Your task to perform on an android device: turn on notifications settings in the gmail app Image 0: 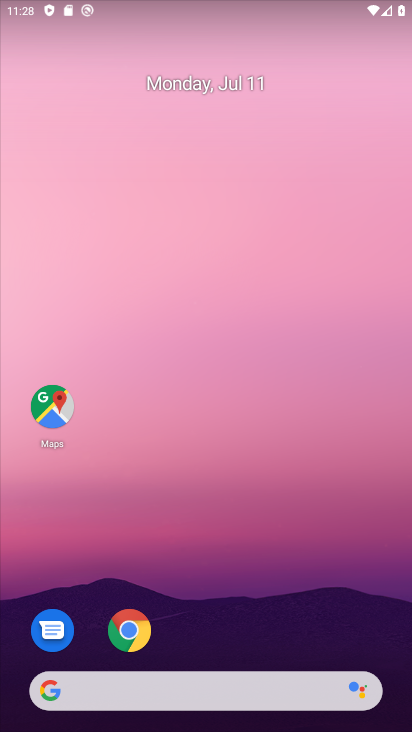
Step 0: drag from (221, 694) to (297, 204)
Your task to perform on an android device: turn on notifications settings in the gmail app Image 1: 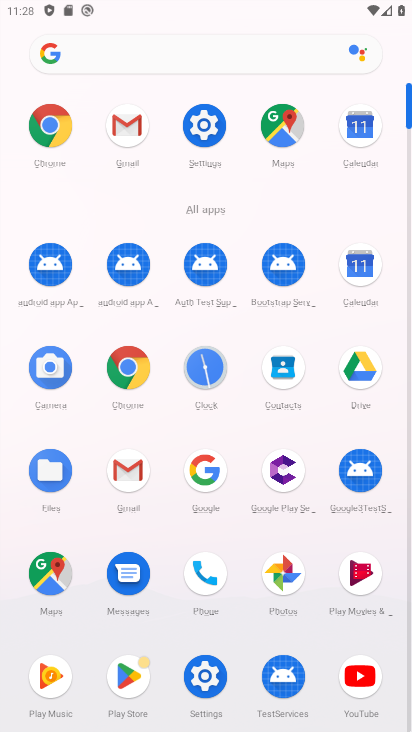
Step 1: click (125, 125)
Your task to perform on an android device: turn on notifications settings in the gmail app Image 2: 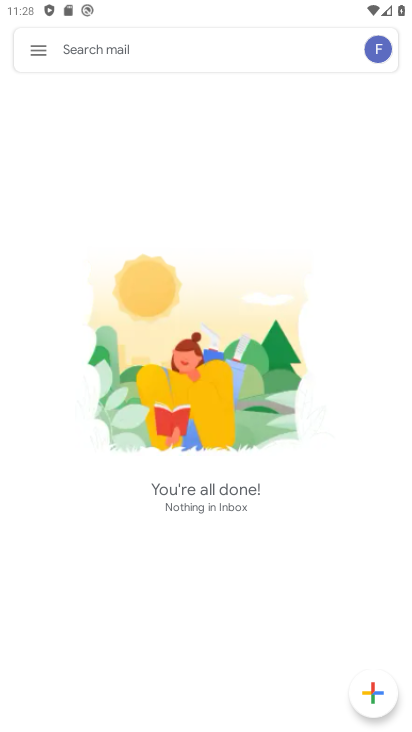
Step 2: click (43, 50)
Your task to perform on an android device: turn on notifications settings in the gmail app Image 3: 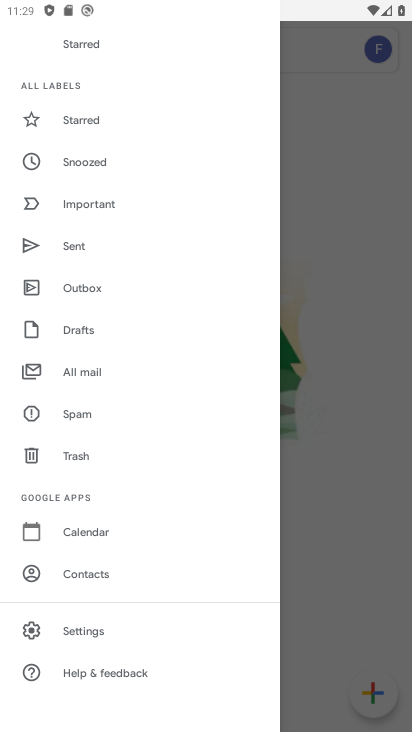
Step 3: click (96, 627)
Your task to perform on an android device: turn on notifications settings in the gmail app Image 4: 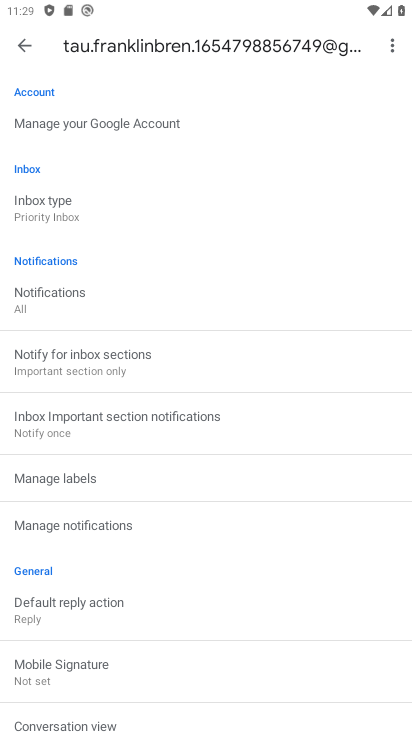
Step 4: click (116, 522)
Your task to perform on an android device: turn on notifications settings in the gmail app Image 5: 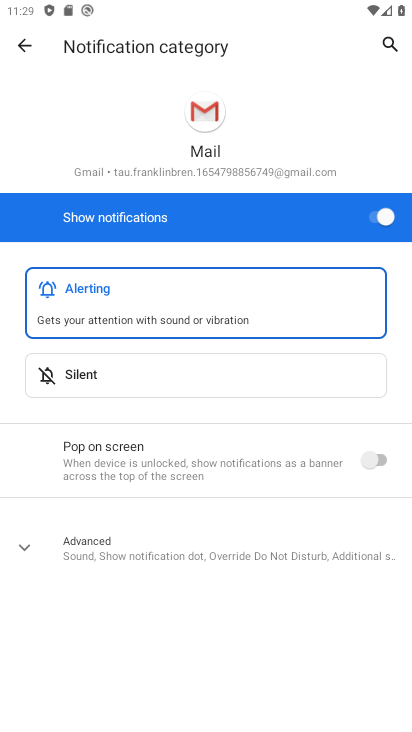
Step 5: task complete